Your task to perform on an android device: open the mobile data screen to see how much data has been used Image 0: 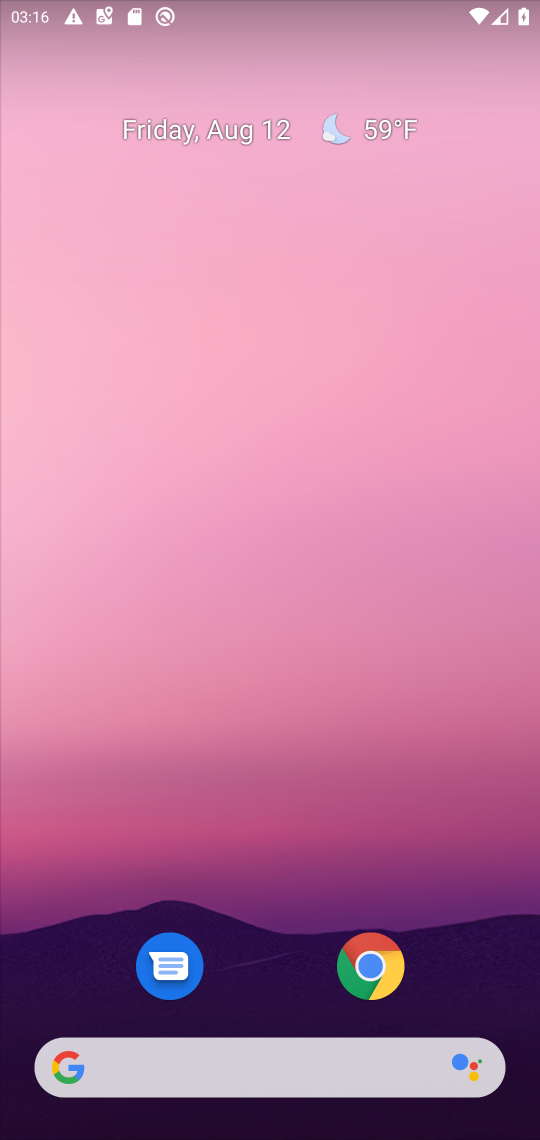
Step 0: drag from (311, 853) to (351, 17)
Your task to perform on an android device: open the mobile data screen to see how much data has been used Image 1: 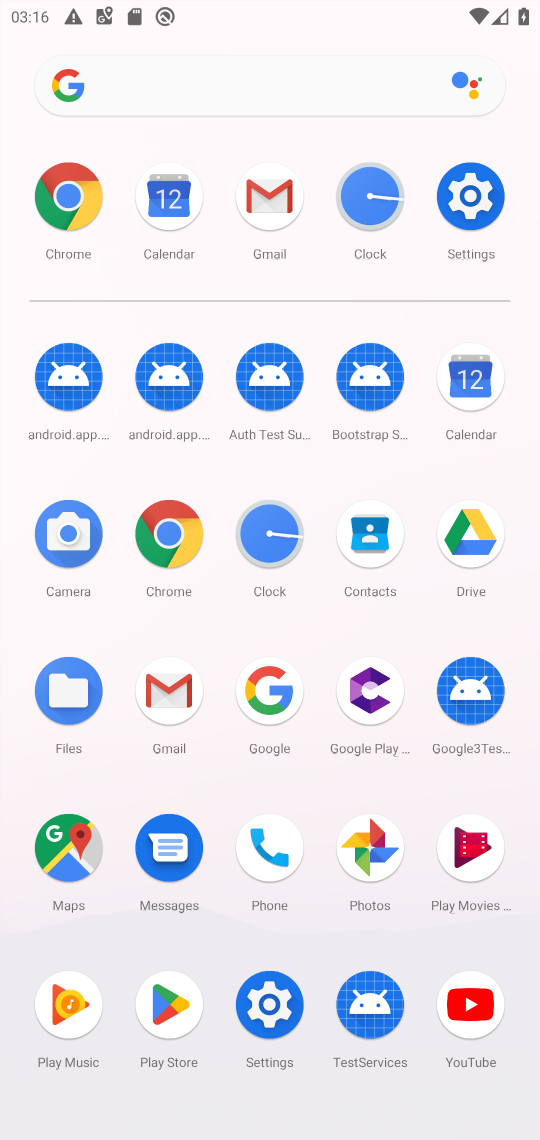
Step 1: click (468, 184)
Your task to perform on an android device: open the mobile data screen to see how much data has been used Image 2: 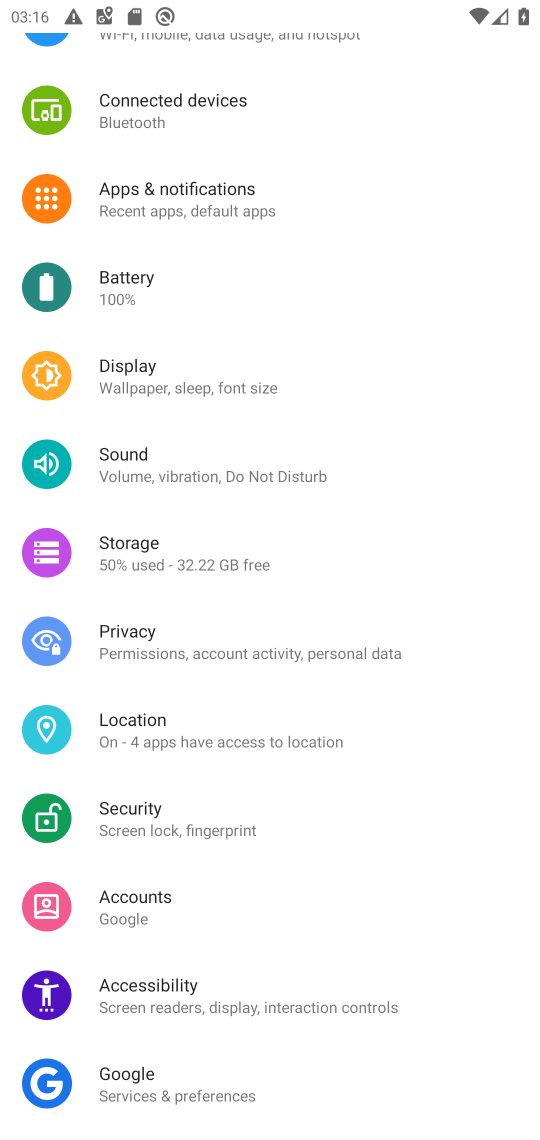
Step 2: drag from (293, 155) to (260, 892)
Your task to perform on an android device: open the mobile data screen to see how much data has been used Image 3: 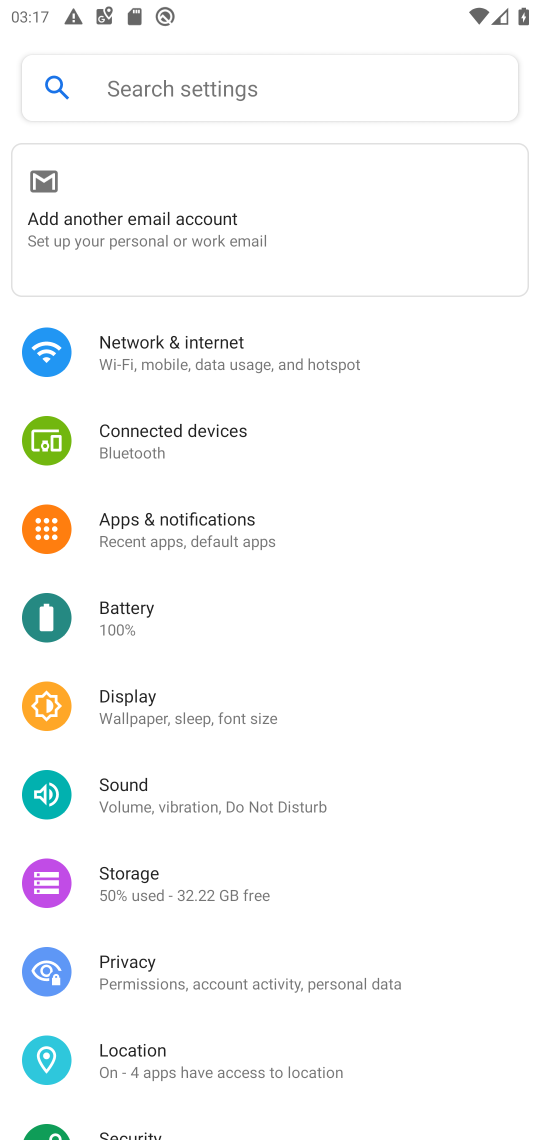
Step 3: click (206, 359)
Your task to perform on an android device: open the mobile data screen to see how much data has been used Image 4: 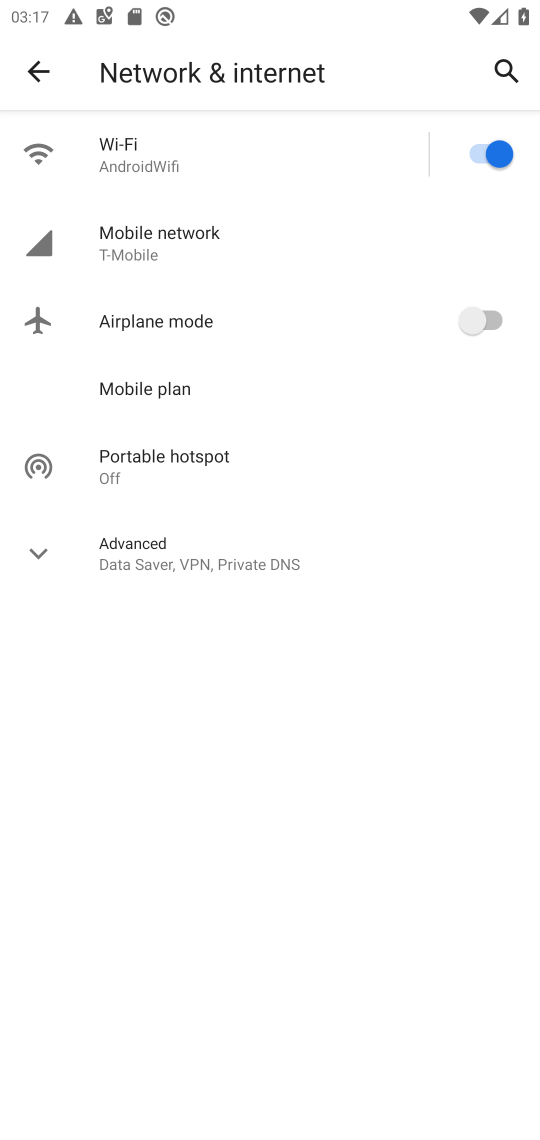
Step 4: click (261, 249)
Your task to perform on an android device: open the mobile data screen to see how much data has been used Image 5: 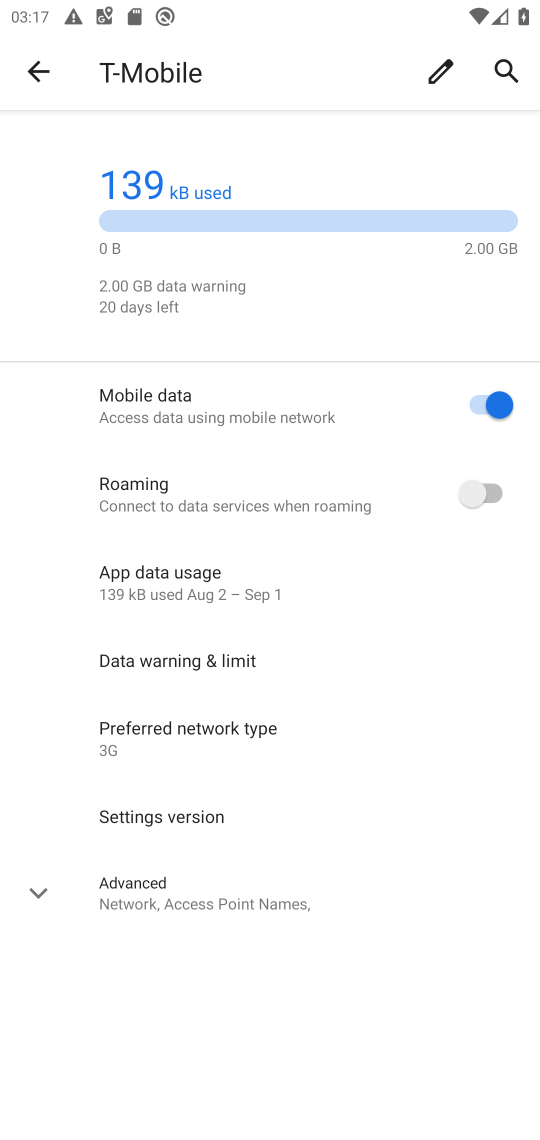
Step 5: task complete